Your task to perform on an android device: open app "Google Docs" Image 0: 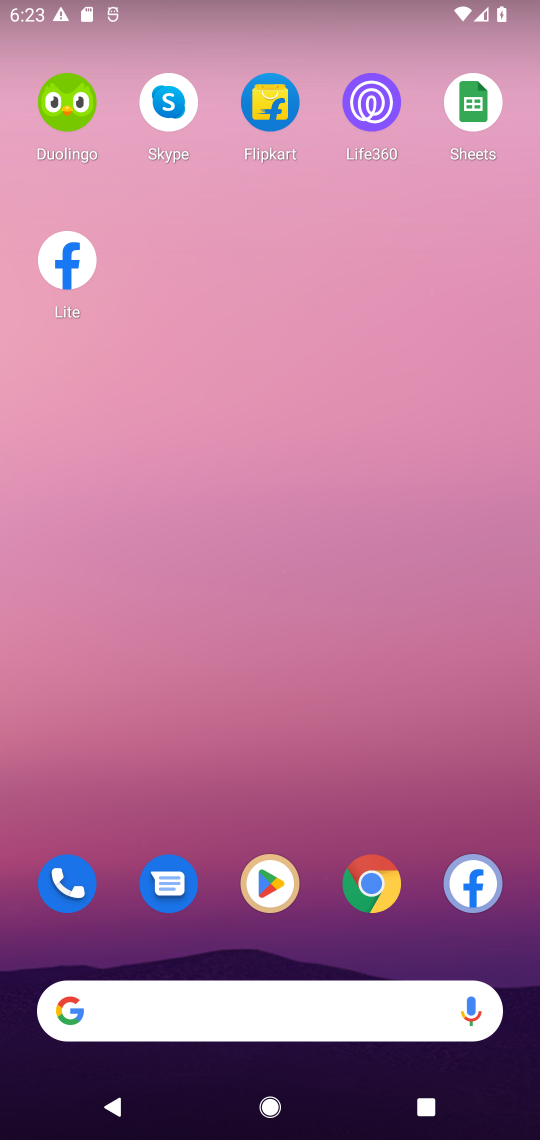
Step 0: drag from (311, 807) to (276, 217)
Your task to perform on an android device: open app "Google Docs" Image 1: 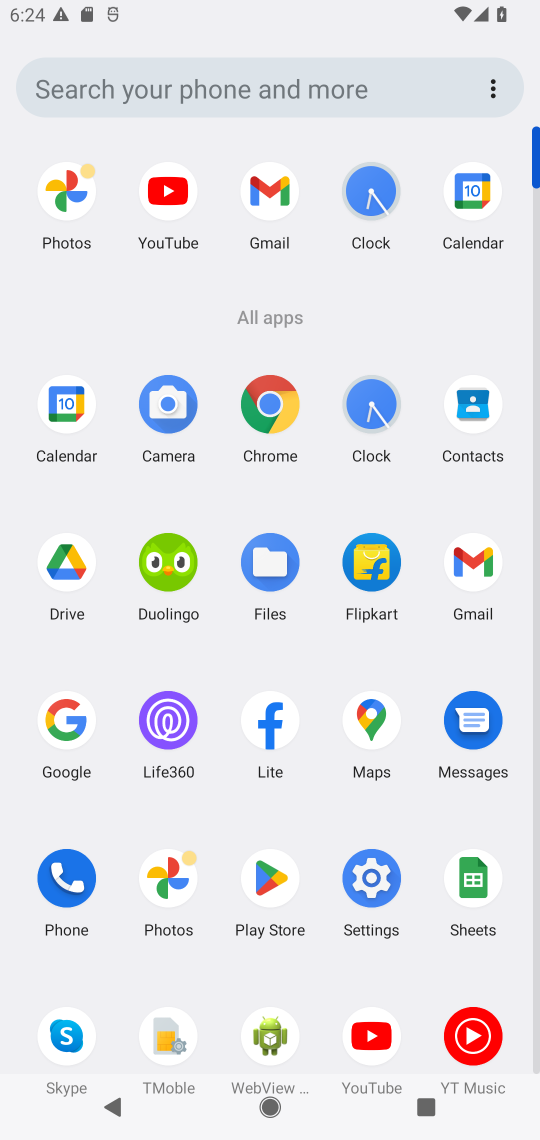
Step 1: drag from (319, 614) to (102, 614)
Your task to perform on an android device: open app "Google Docs" Image 2: 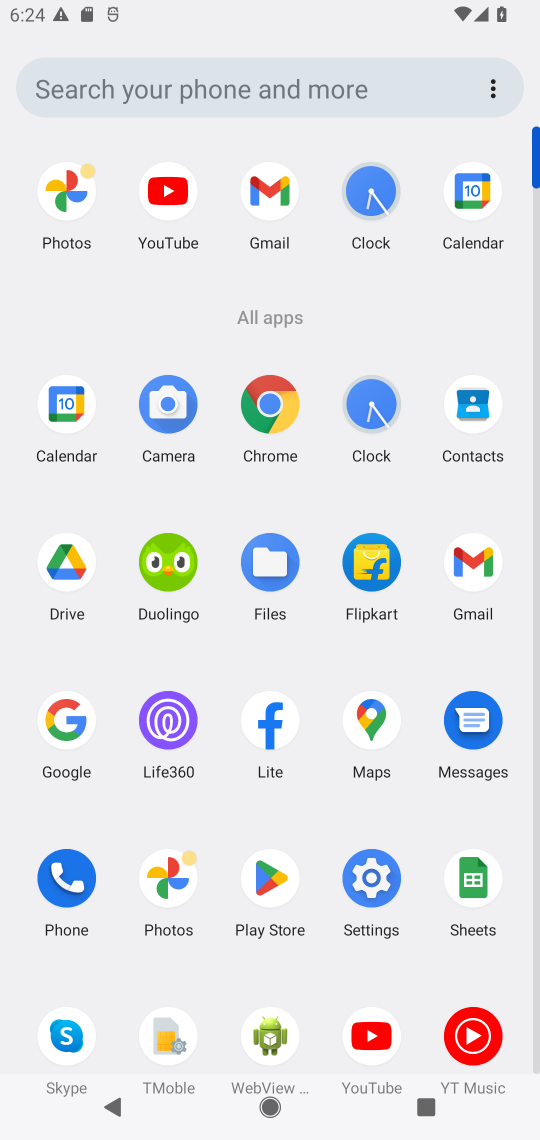
Step 2: drag from (489, 716) to (130, 726)
Your task to perform on an android device: open app "Google Docs" Image 3: 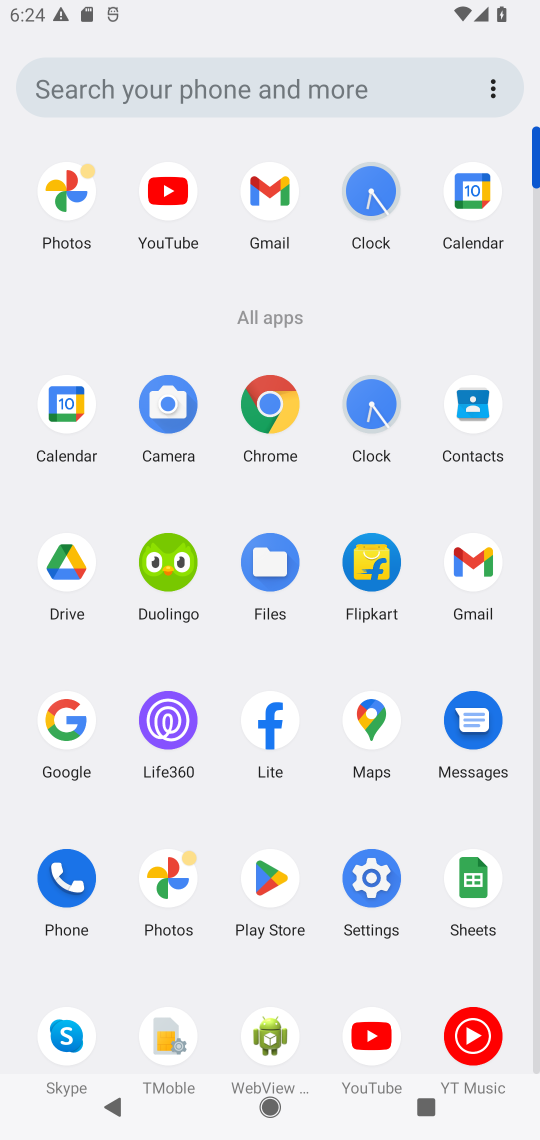
Step 3: click (274, 885)
Your task to perform on an android device: open app "Google Docs" Image 4: 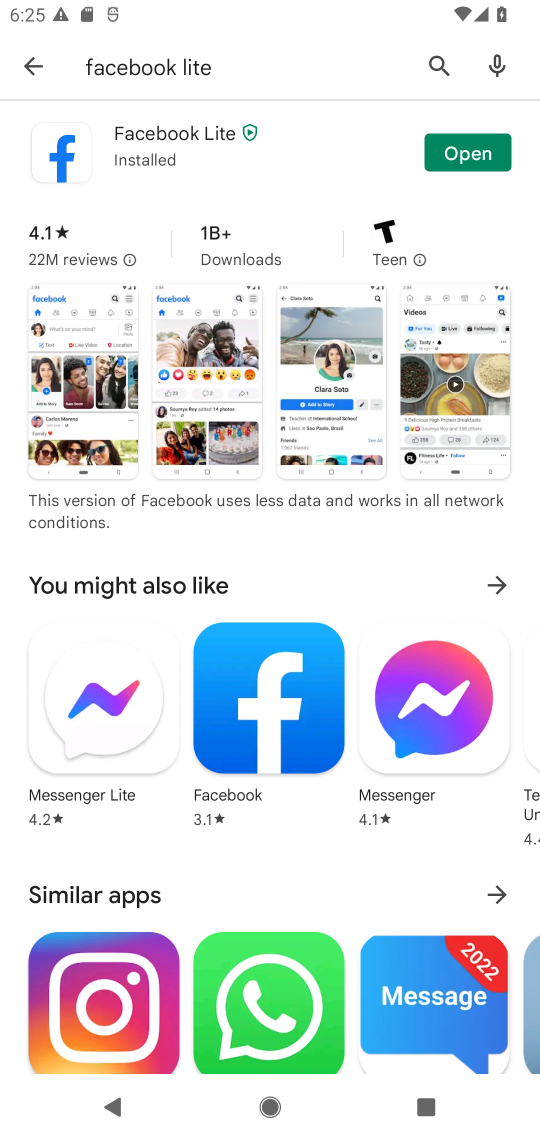
Step 4: click (444, 56)
Your task to perform on an android device: open app "Google Docs" Image 5: 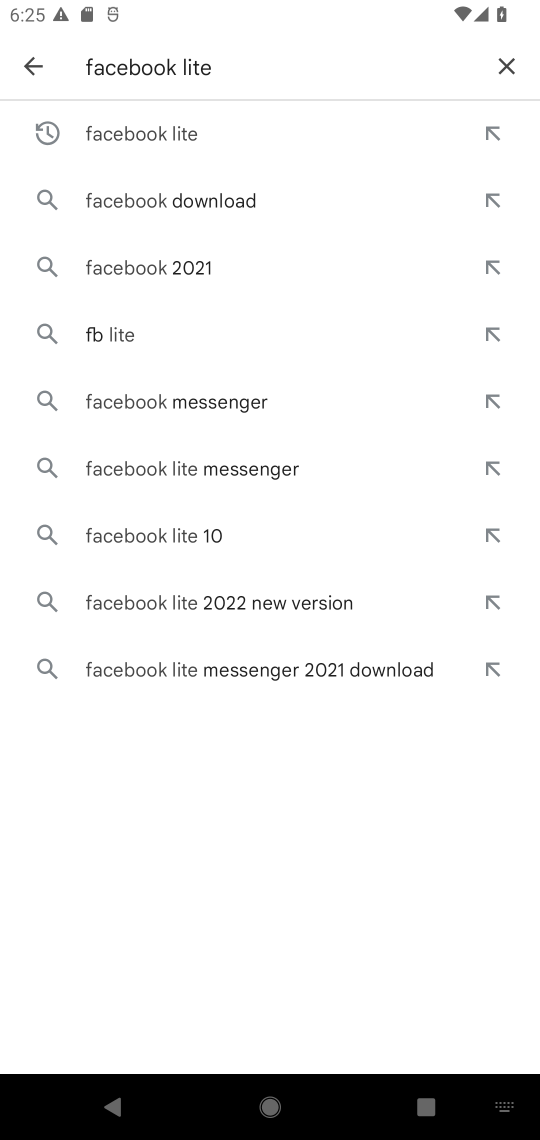
Step 5: click (497, 65)
Your task to perform on an android device: open app "Google Docs" Image 6: 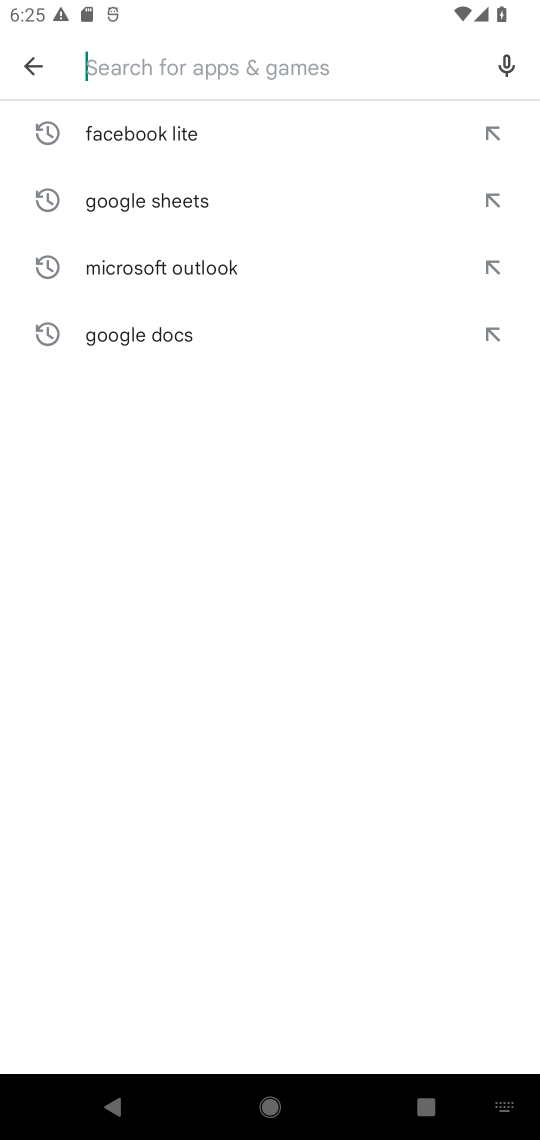
Step 6: type "Google Docs"
Your task to perform on an android device: open app "Google Docs" Image 7: 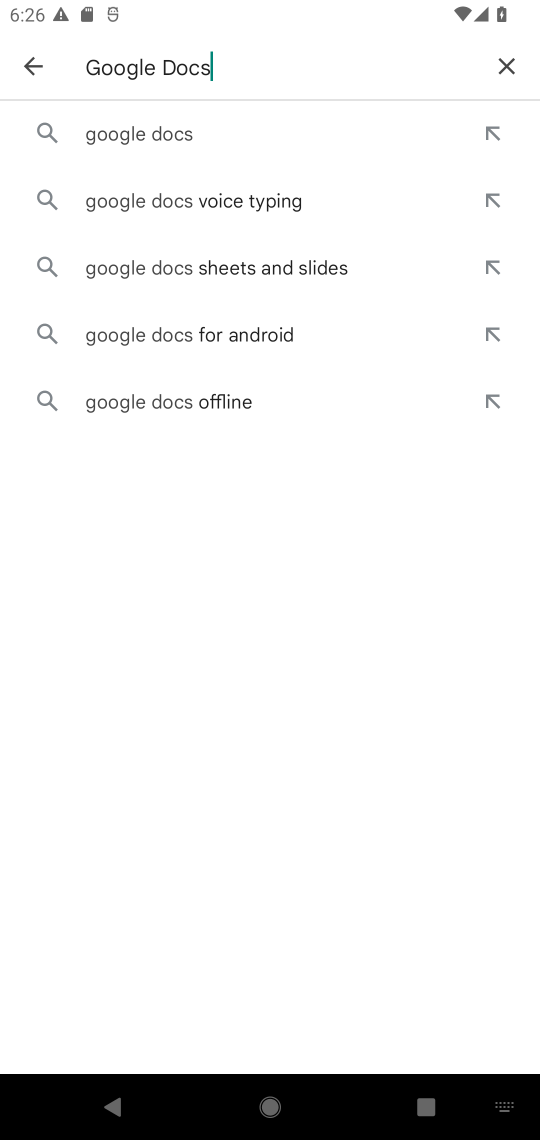
Step 7: click (158, 126)
Your task to perform on an android device: open app "Google Docs" Image 8: 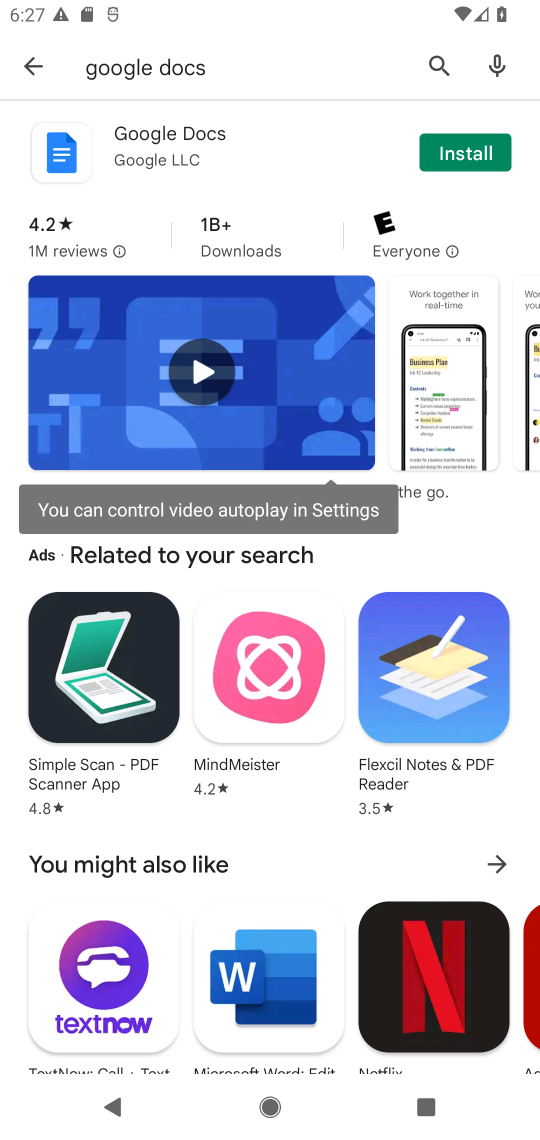
Step 8: task complete